Your task to perform on an android device: Go to ESPN.com Image 0: 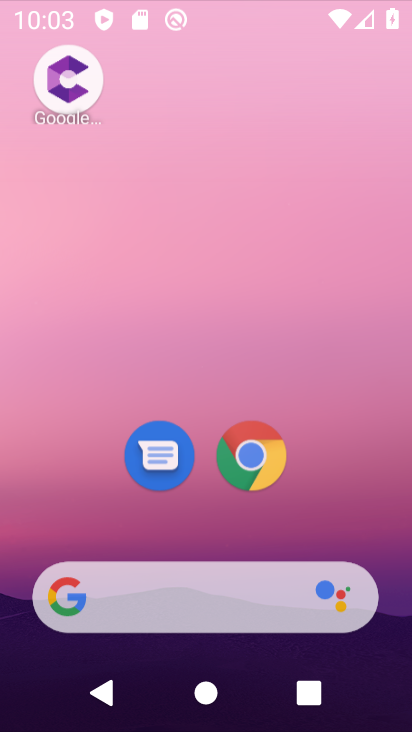
Step 0: drag from (188, 489) to (243, 61)
Your task to perform on an android device: Go to ESPN.com Image 1: 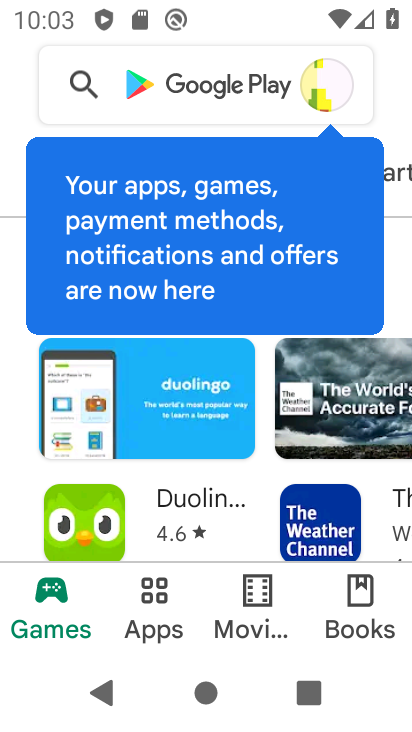
Step 1: press back button
Your task to perform on an android device: Go to ESPN.com Image 2: 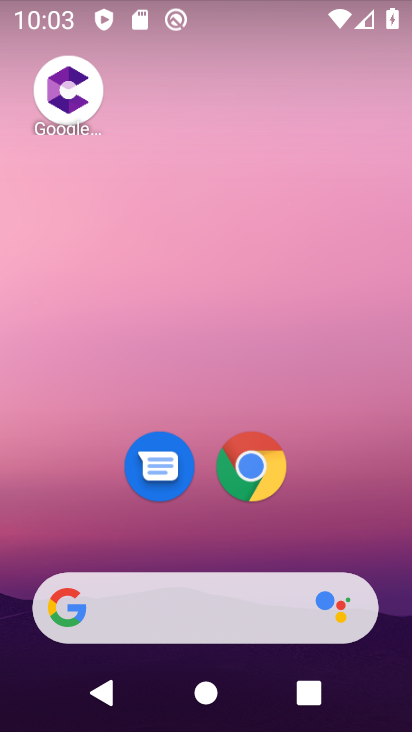
Step 2: click (250, 467)
Your task to perform on an android device: Go to ESPN.com Image 3: 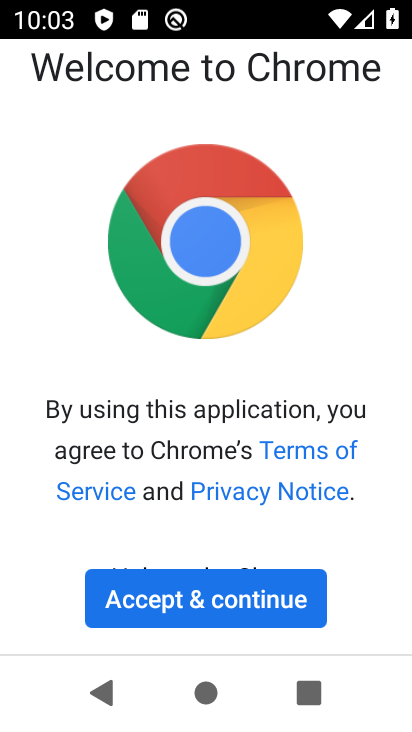
Step 3: click (183, 607)
Your task to perform on an android device: Go to ESPN.com Image 4: 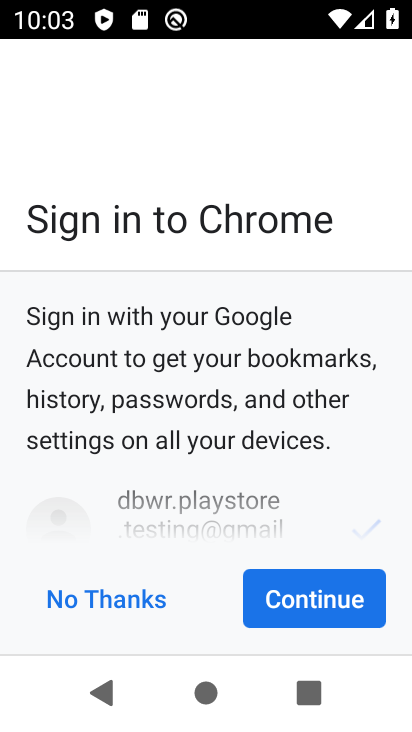
Step 4: click (282, 596)
Your task to perform on an android device: Go to ESPN.com Image 5: 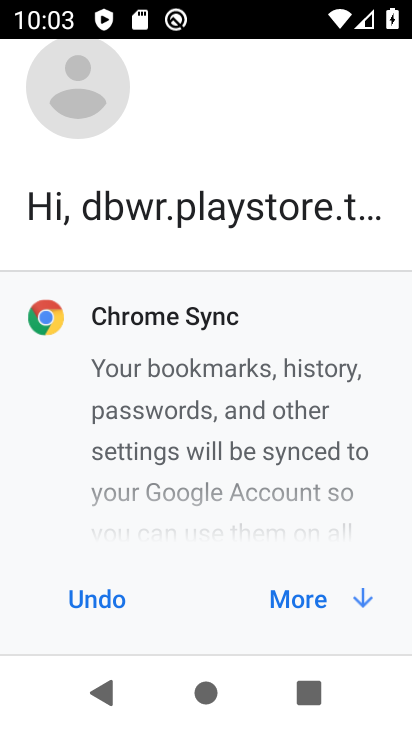
Step 5: click (298, 596)
Your task to perform on an android device: Go to ESPN.com Image 6: 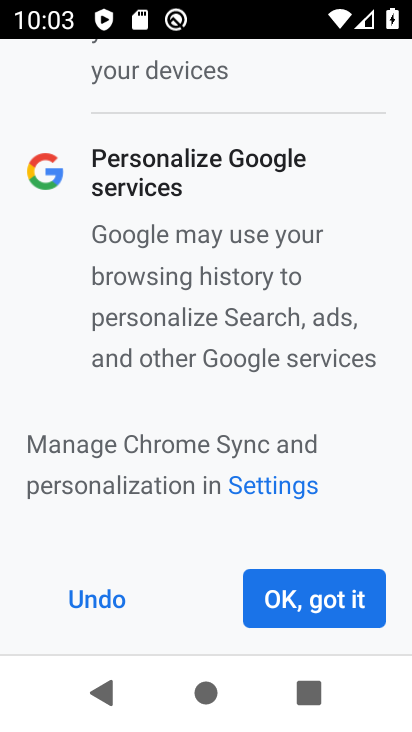
Step 6: click (317, 598)
Your task to perform on an android device: Go to ESPN.com Image 7: 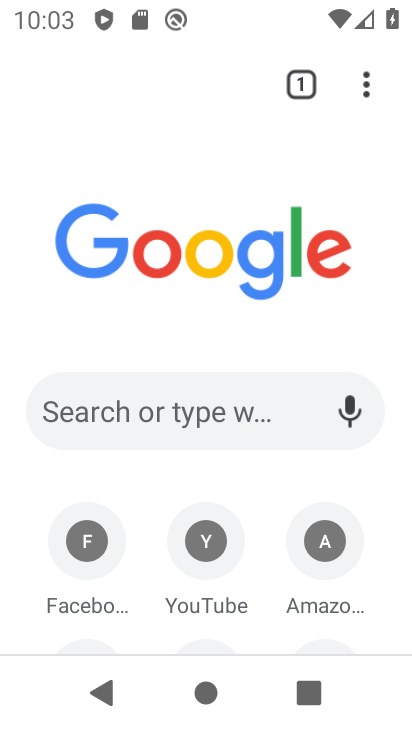
Step 7: drag from (176, 538) to (200, 181)
Your task to perform on an android device: Go to ESPN.com Image 8: 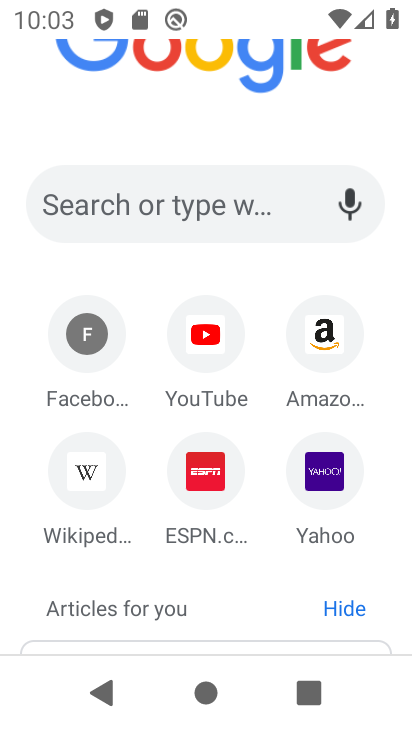
Step 8: click (197, 487)
Your task to perform on an android device: Go to ESPN.com Image 9: 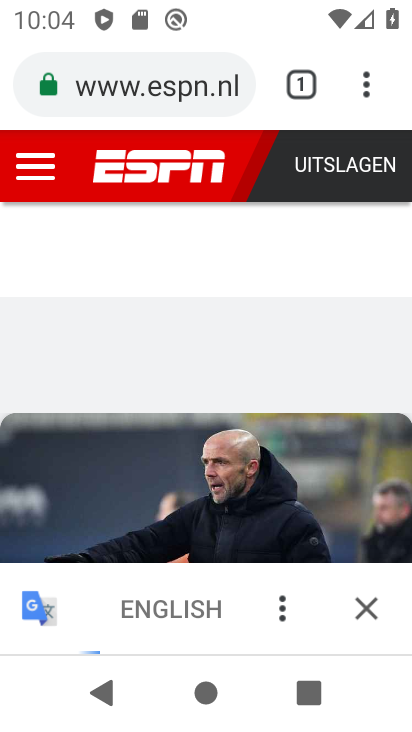
Step 9: task complete